Your task to perform on an android device: open app "Facebook" (install if not already installed) and go to login screen Image 0: 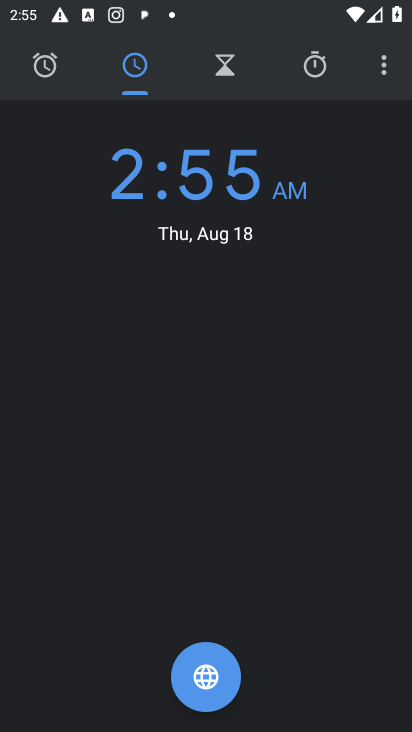
Step 0: press home button
Your task to perform on an android device: open app "Facebook" (install if not already installed) and go to login screen Image 1: 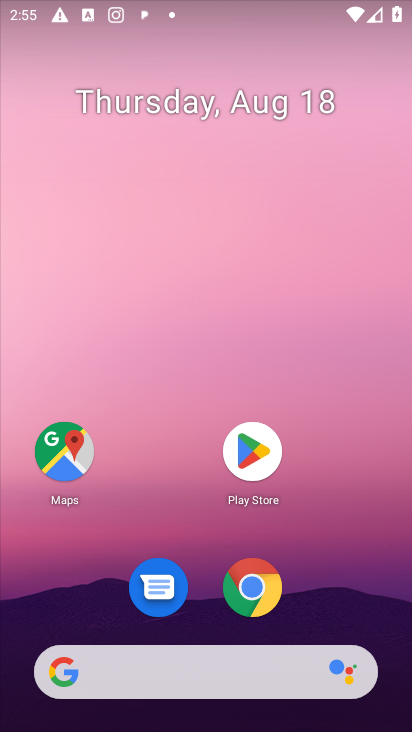
Step 1: click (271, 449)
Your task to perform on an android device: open app "Facebook" (install if not already installed) and go to login screen Image 2: 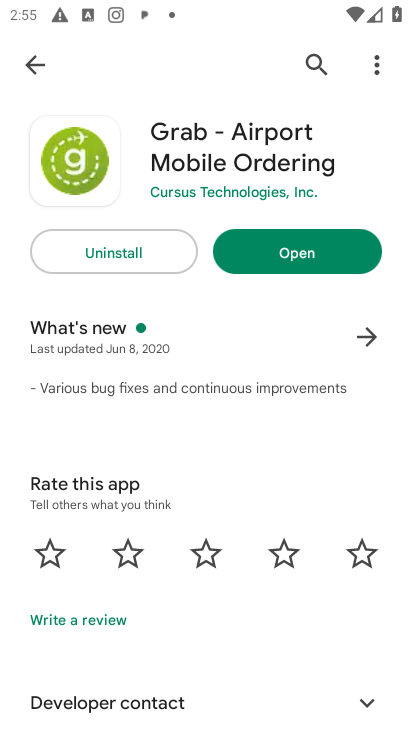
Step 2: click (312, 61)
Your task to perform on an android device: open app "Facebook" (install if not already installed) and go to login screen Image 3: 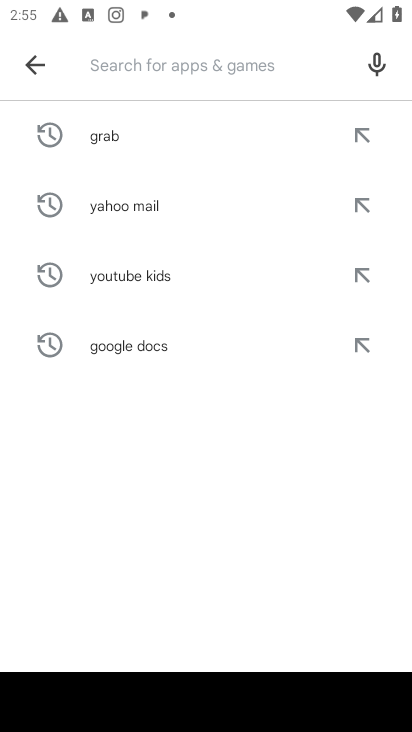
Step 3: type "Facebook"
Your task to perform on an android device: open app "Facebook" (install if not already installed) and go to login screen Image 4: 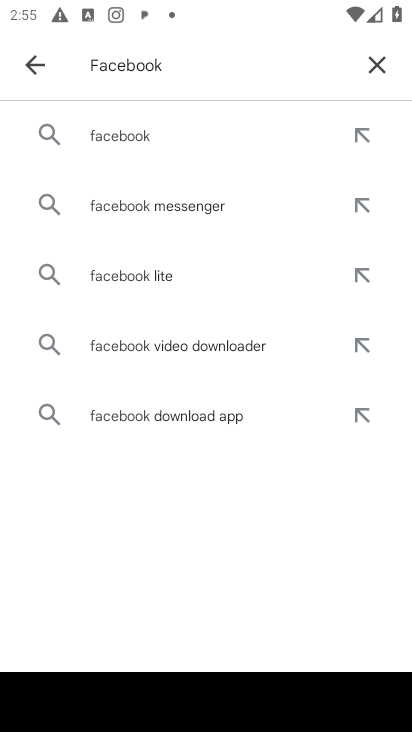
Step 4: click (123, 141)
Your task to perform on an android device: open app "Facebook" (install if not already installed) and go to login screen Image 5: 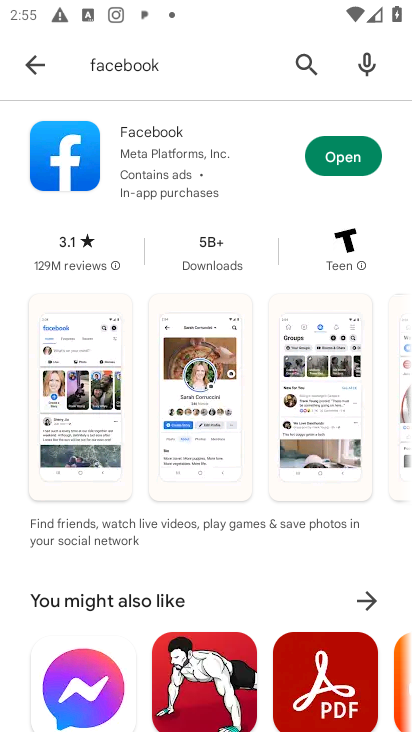
Step 5: click (352, 157)
Your task to perform on an android device: open app "Facebook" (install if not already installed) and go to login screen Image 6: 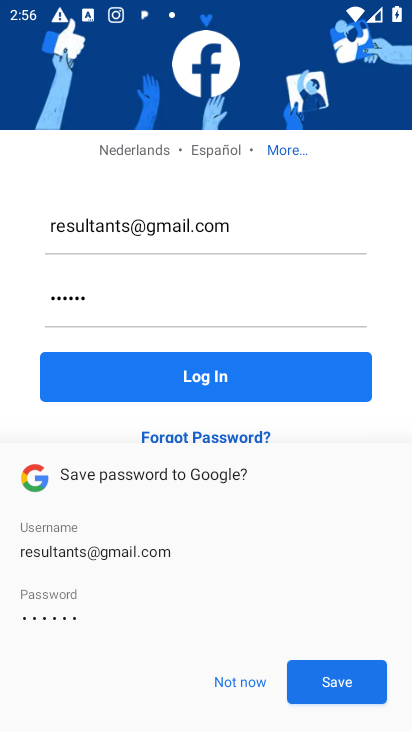
Step 6: task complete